Your task to perform on an android device: set the timer Image 0: 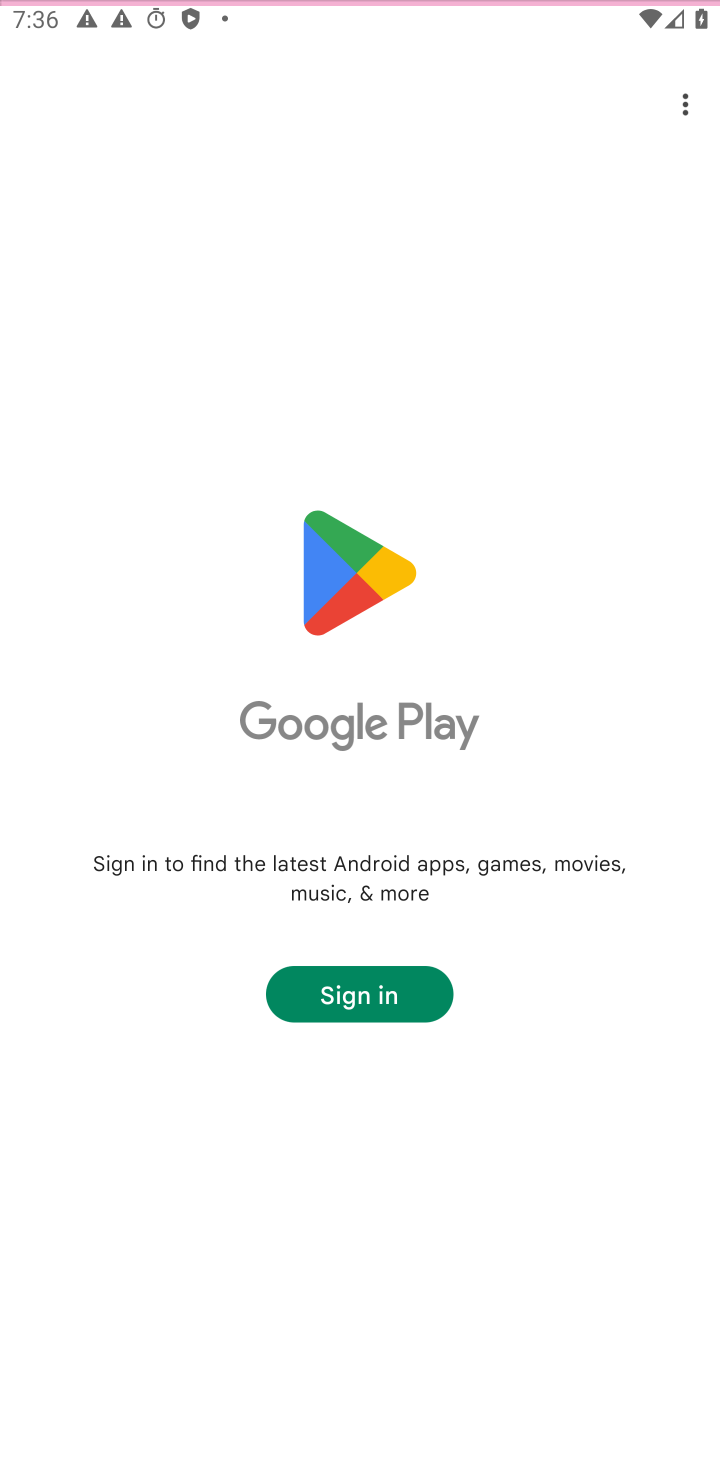
Step 0: press home button
Your task to perform on an android device: set the timer Image 1: 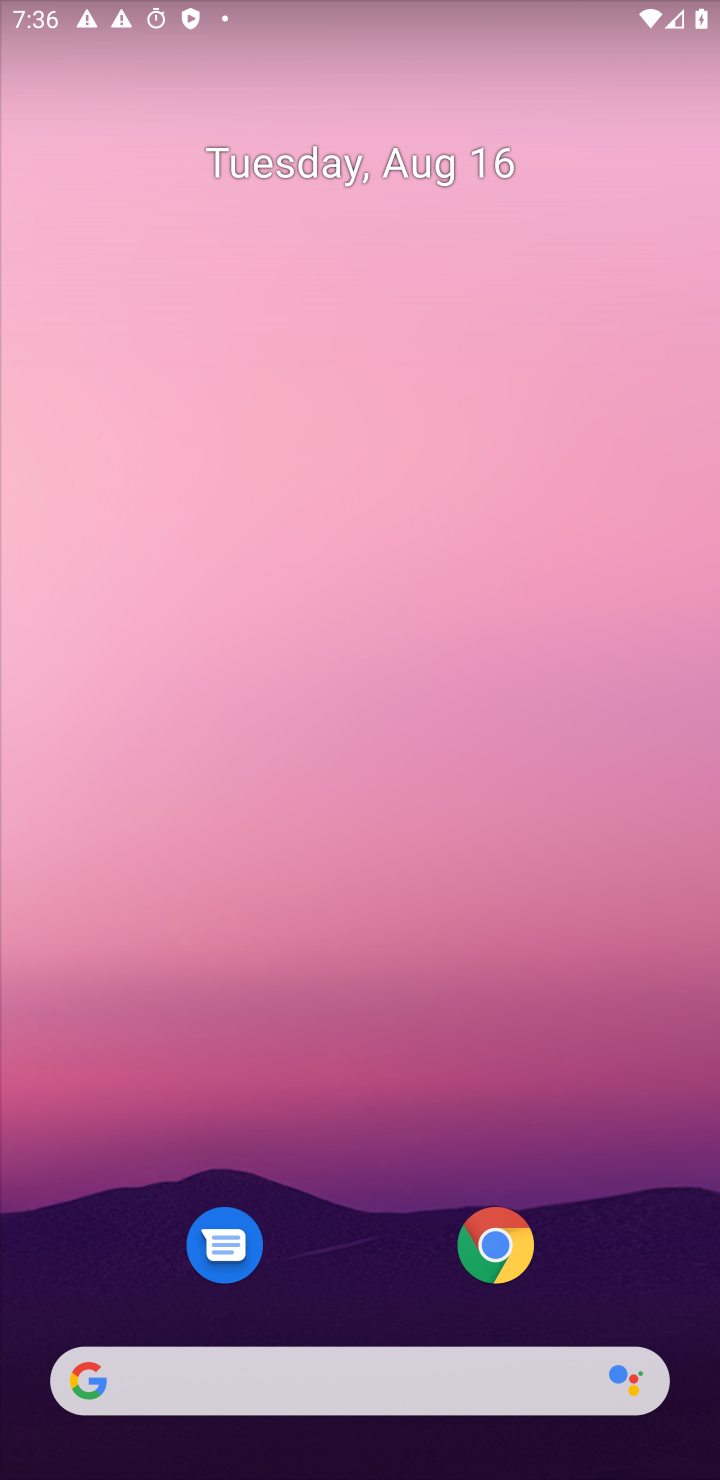
Step 1: drag from (296, 562) to (323, 189)
Your task to perform on an android device: set the timer Image 2: 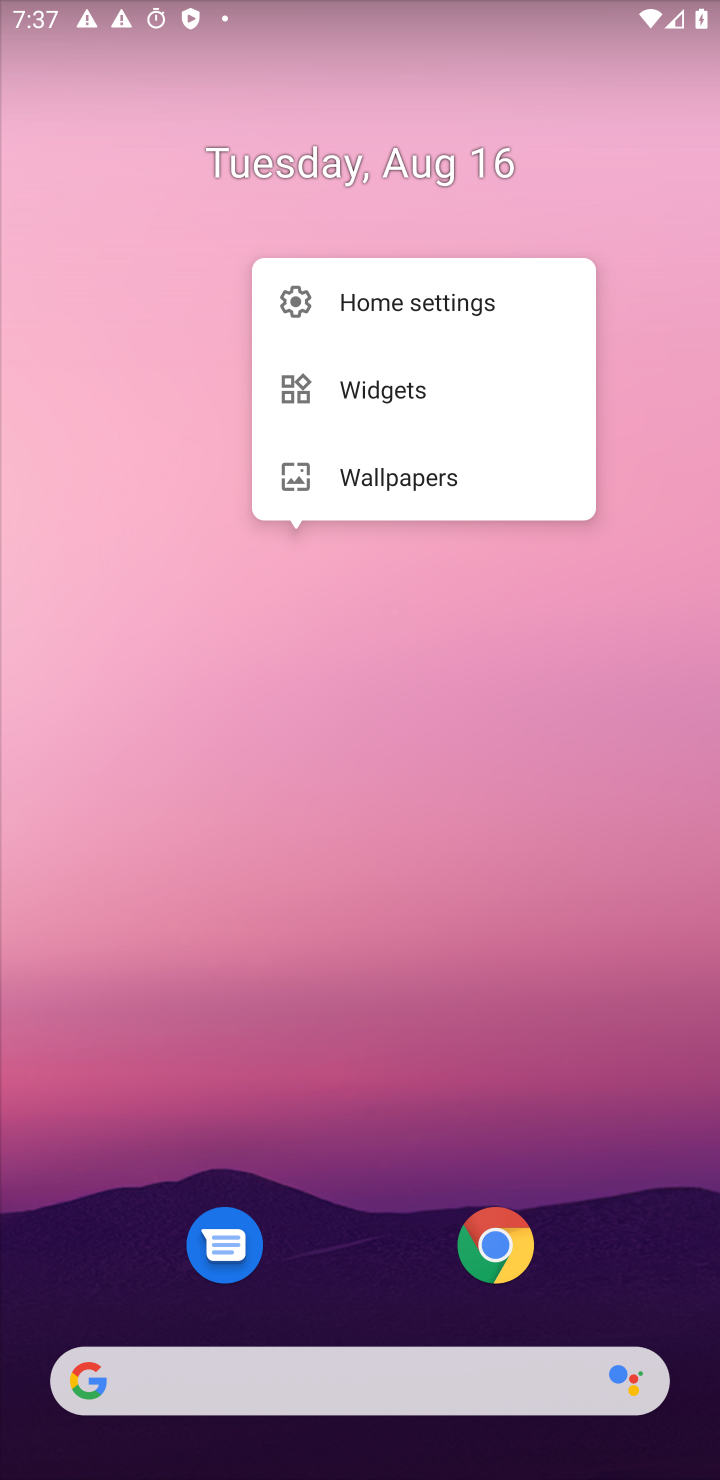
Step 2: click (417, 947)
Your task to perform on an android device: set the timer Image 3: 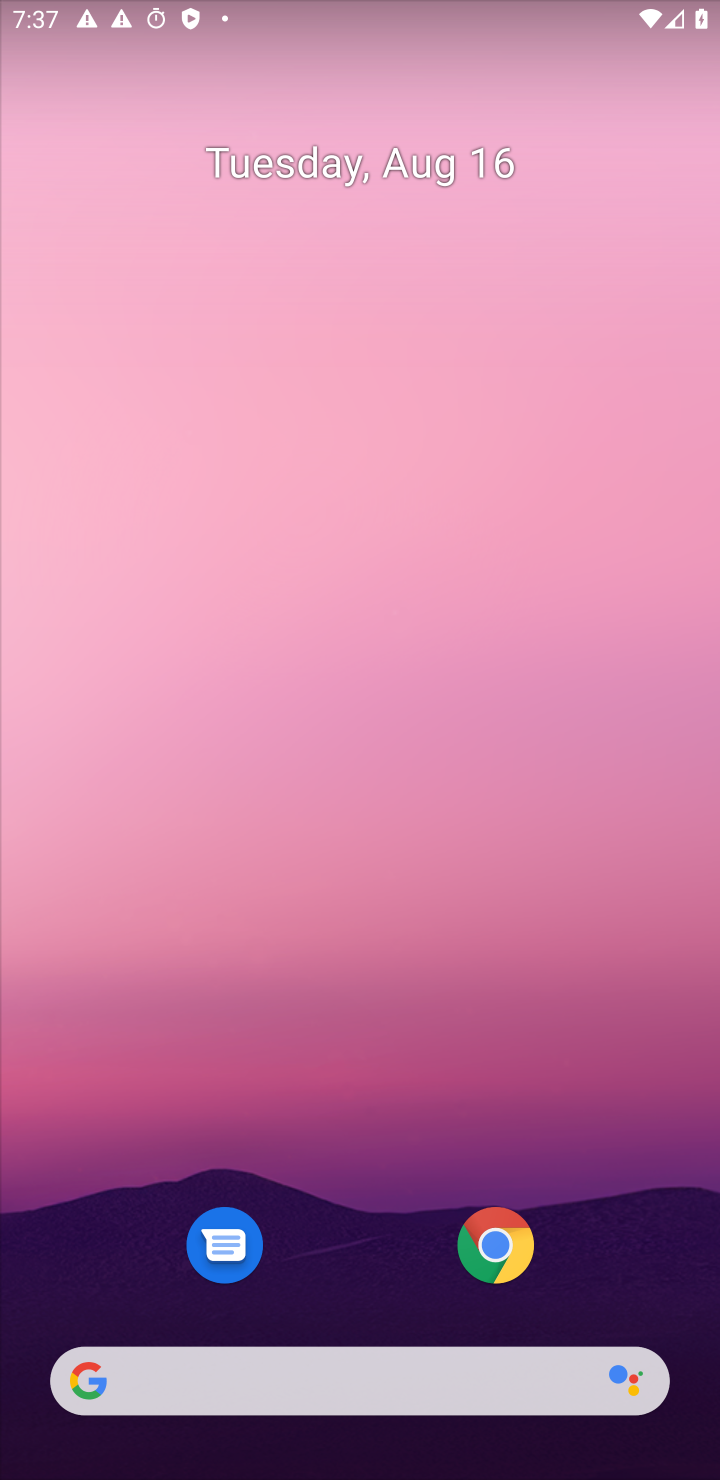
Step 3: drag from (334, 1032) to (296, 202)
Your task to perform on an android device: set the timer Image 4: 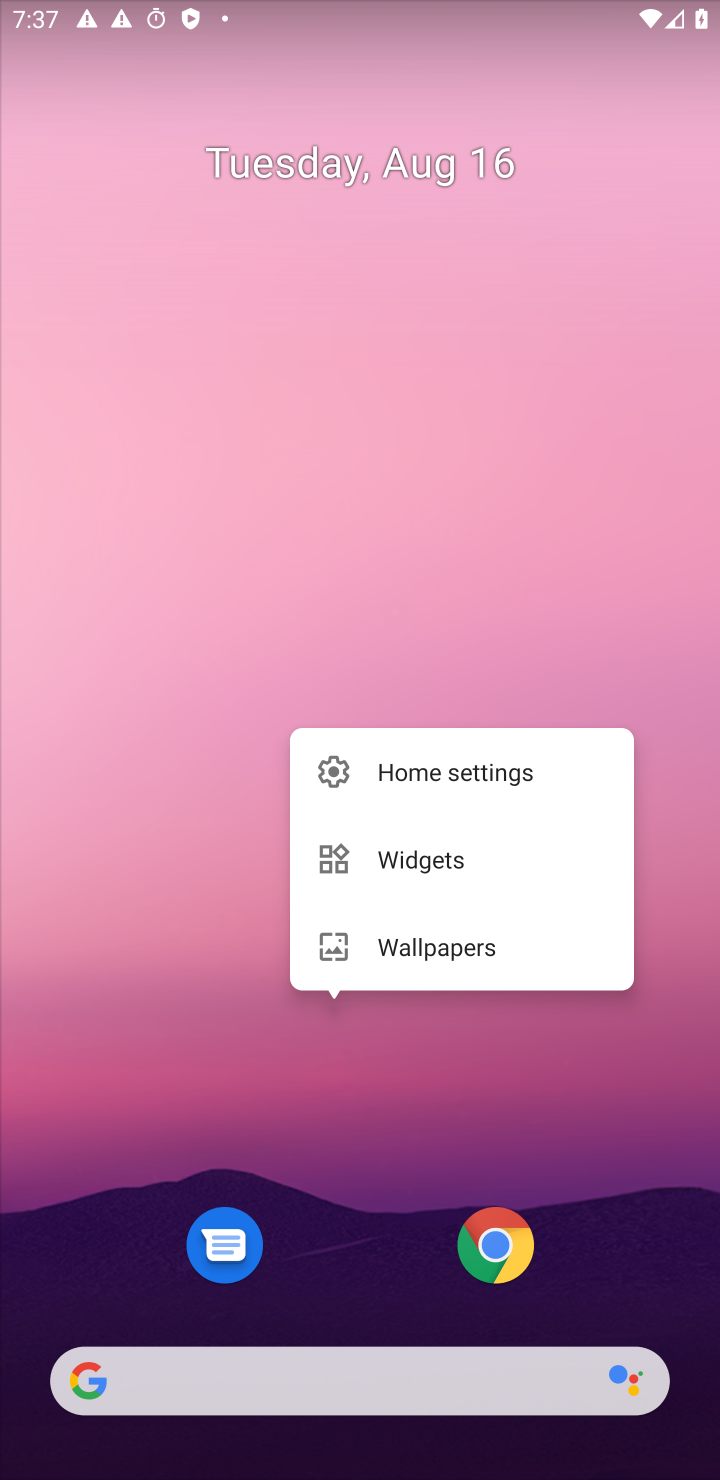
Step 4: click (454, 276)
Your task to perform on an android device: set the timer Image 5: 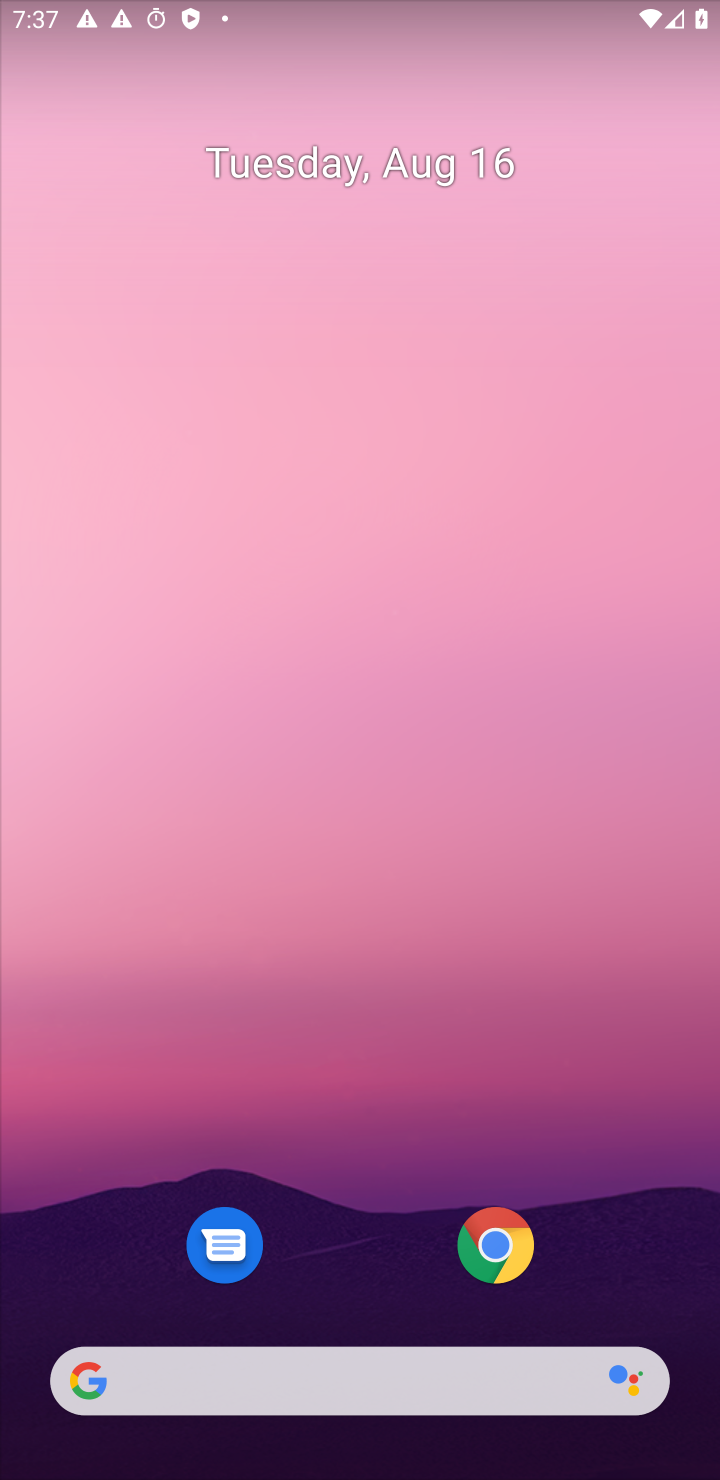
Step 5: drag from (384, 1223) to (286, 114)
Your task to perform on an android device: set the timer Image 6: 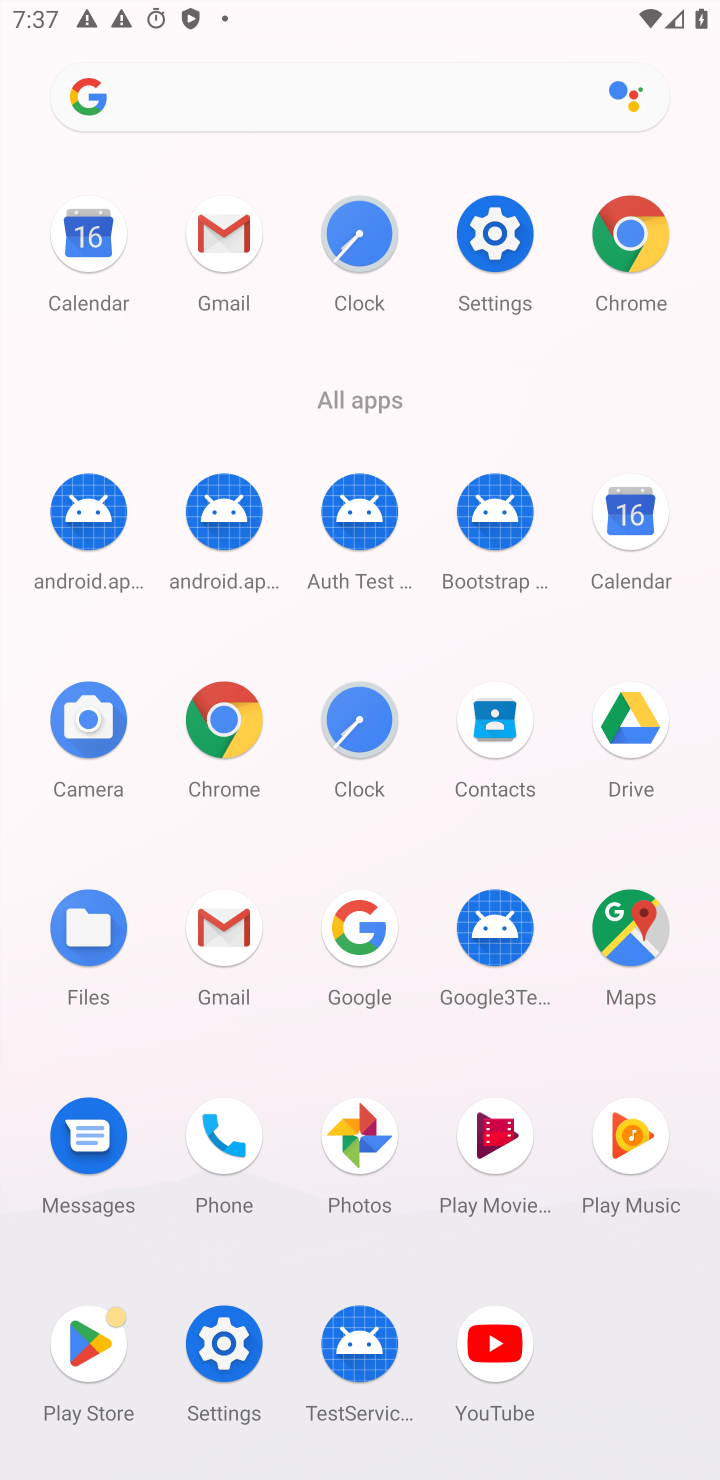
Step 6: click (355, 704)
Your task to perform on an android device: set the timer Image 7: 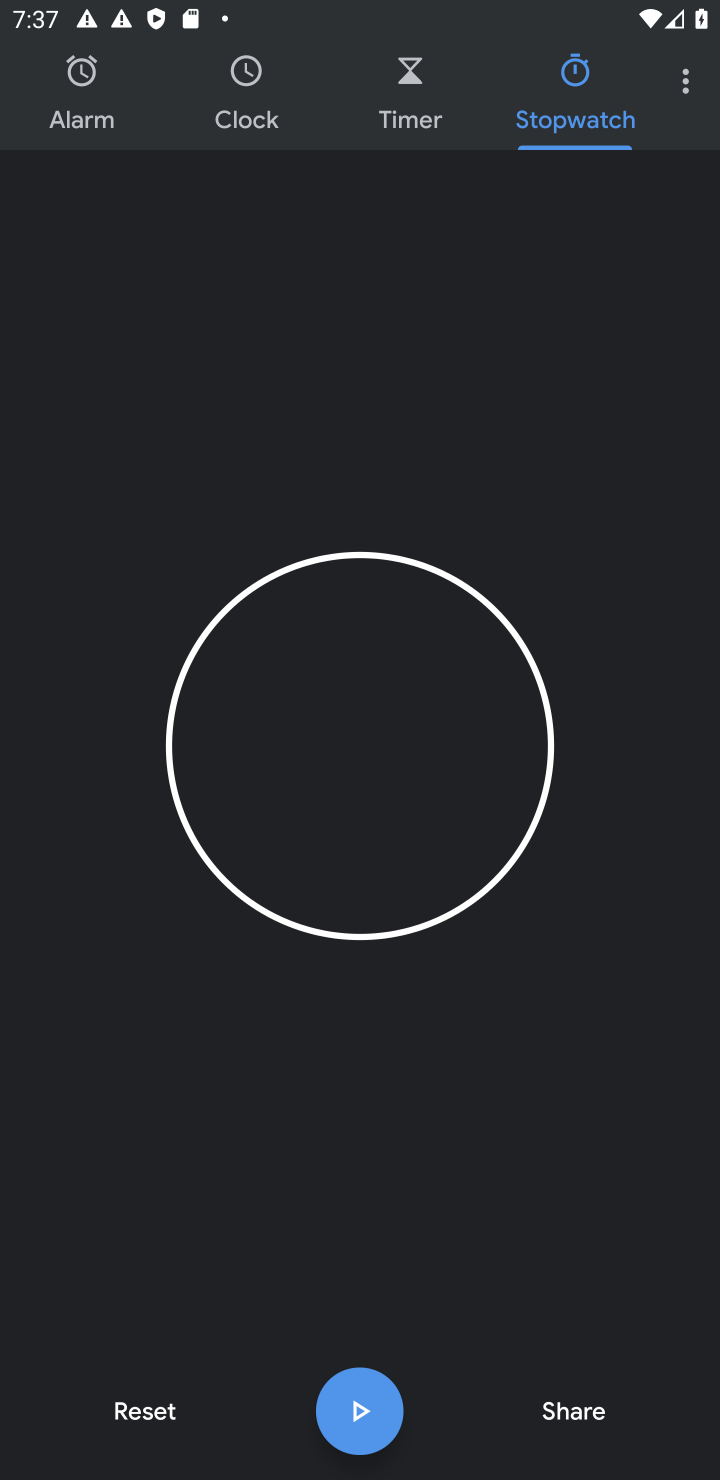
Step 7: click (405, 102)
Your task to perform on an android device: set the timer Image 8: 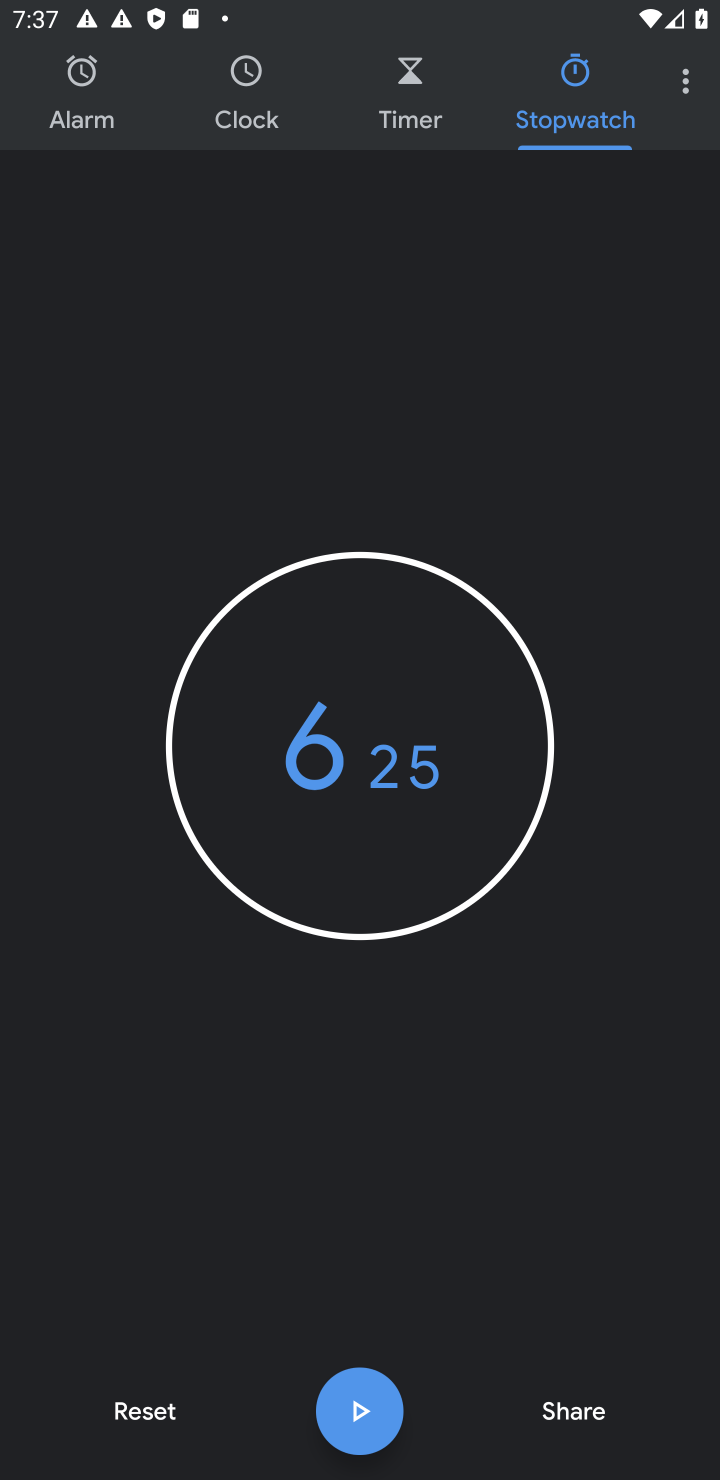
Step 8: click (419, 108)
Your task to perform on an android device: set the timer Image 9: 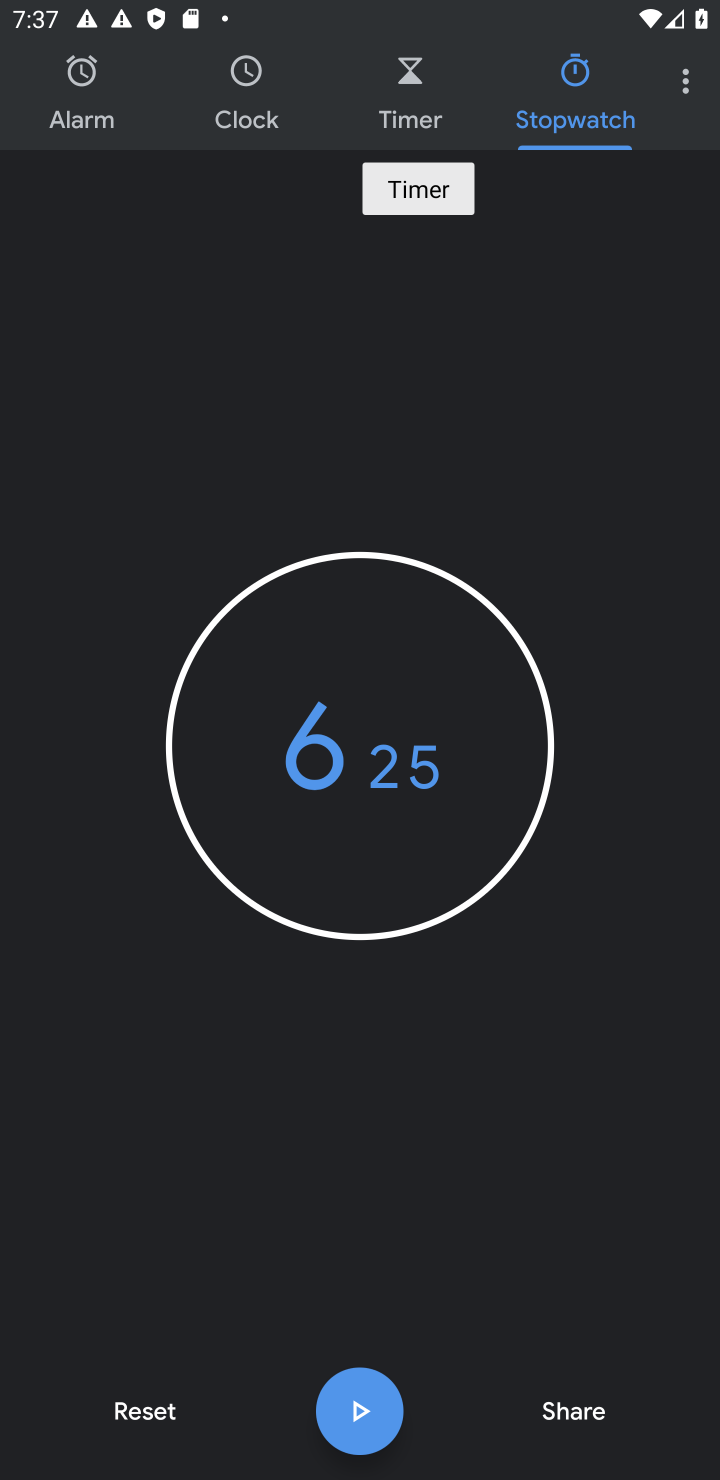
Step 9: click (406, 96)
Your task to perform on an android device: set the timer Image 10: 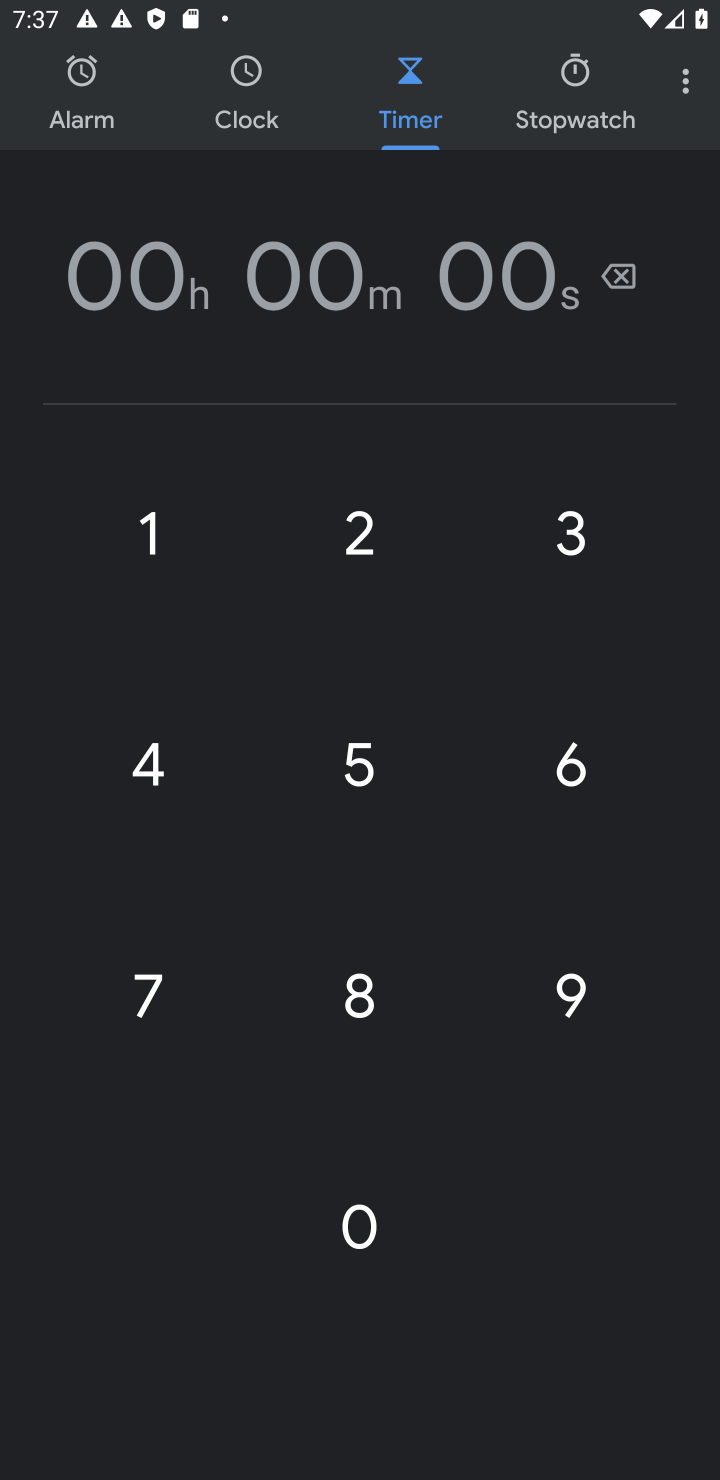
Step 10: click (572, 543)
Your task to perform on an android device: set the timer Image 11: 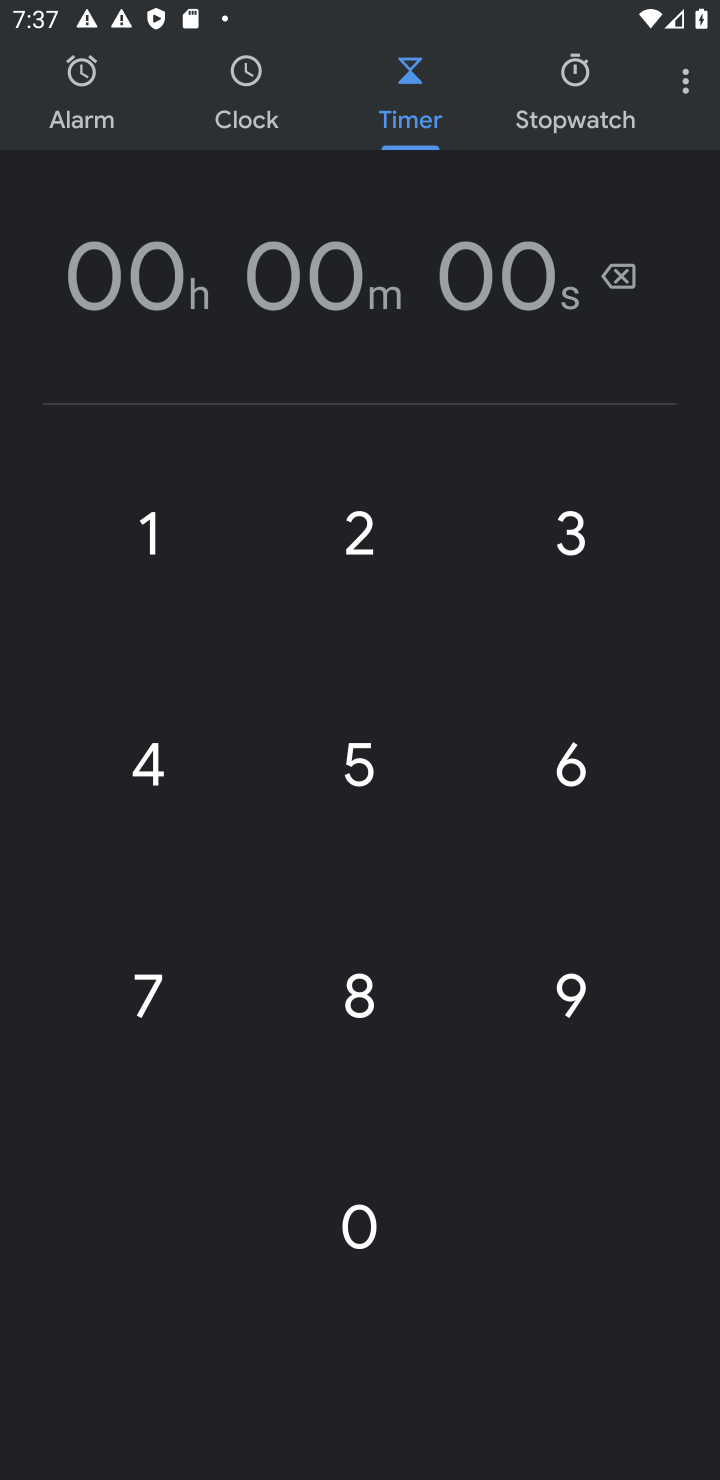
Step 11: click (367, 550)
Your task to perform on an android device: set the timer Image 12: 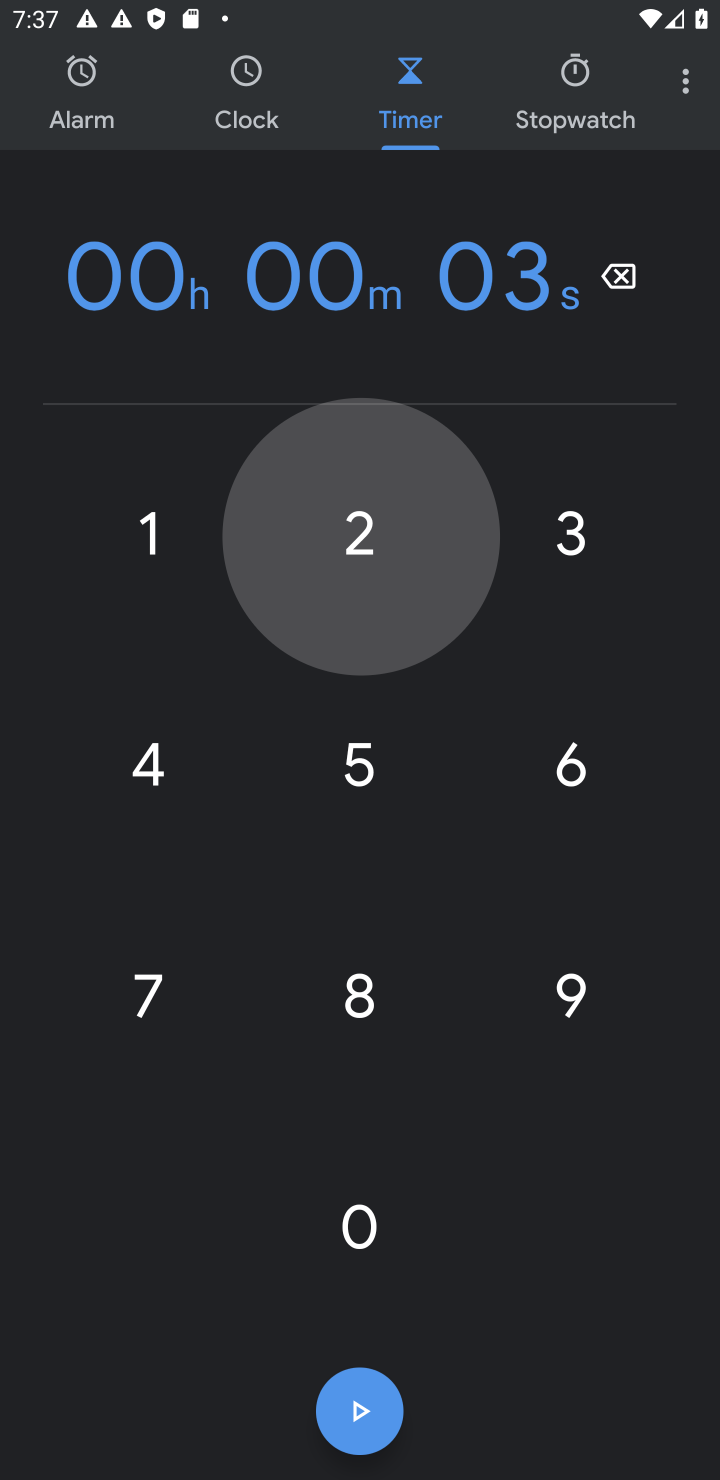
Step 12: click (146, 550)
Your task to perform on an android device: set the timer Image 13: 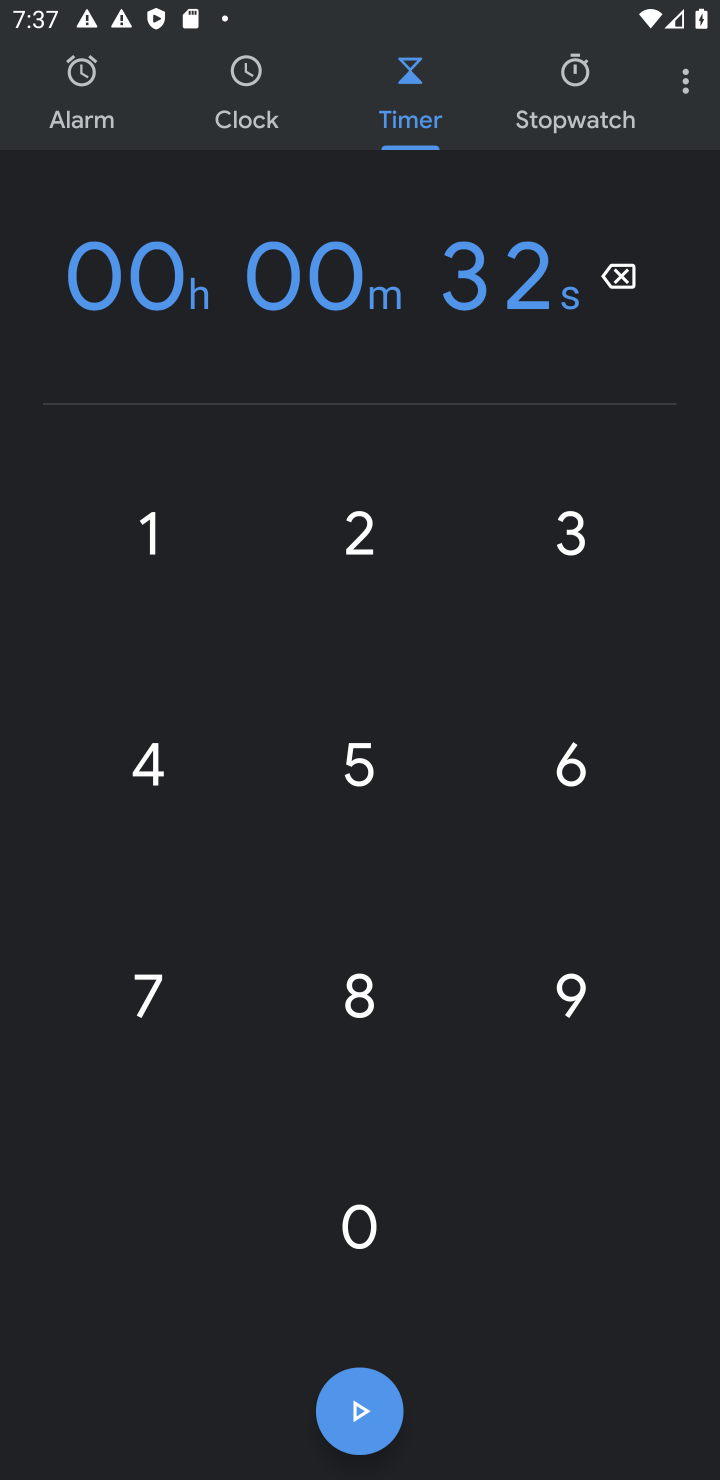
Step 13: click (582, 757)
Your task to perform on an android device: set the timer Image 14: 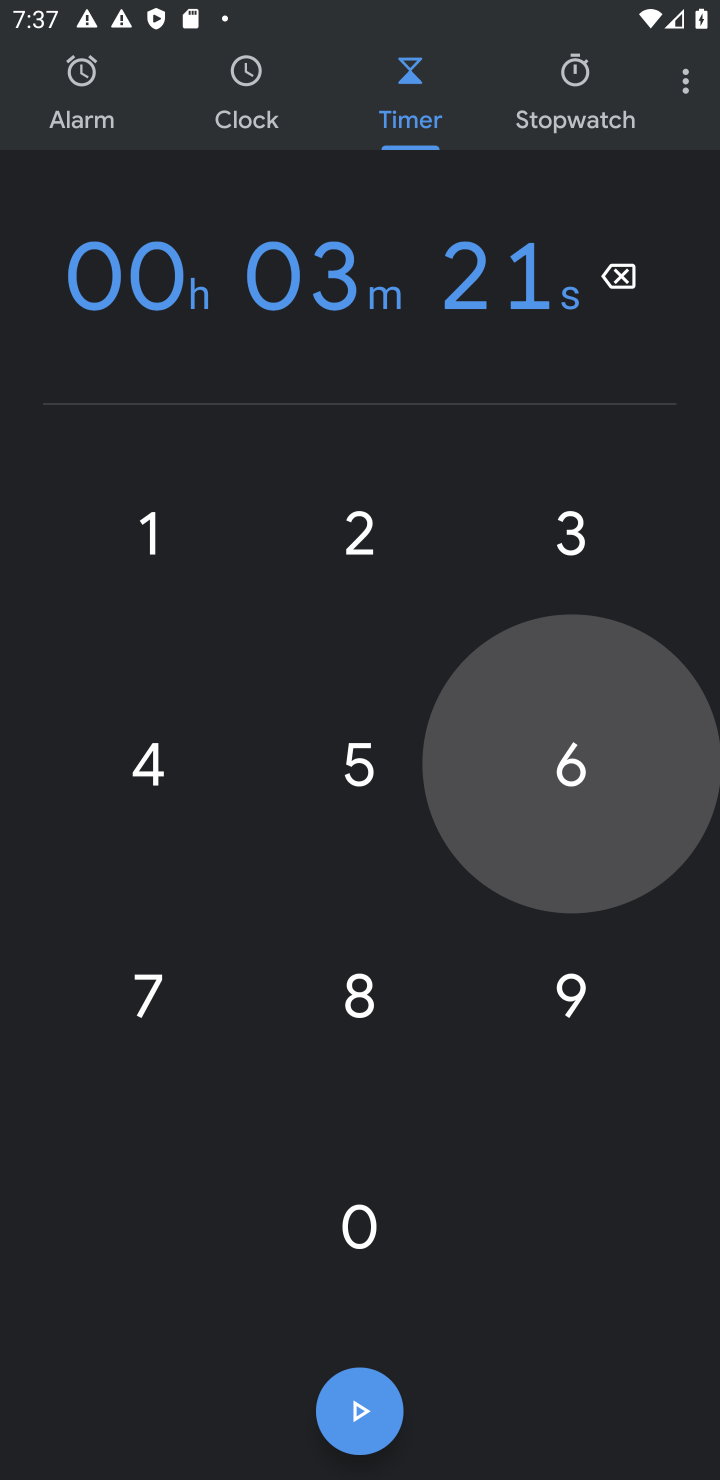
Step 14: click (341, 786)
Your task to perform on an android device: set the timer Image 15: 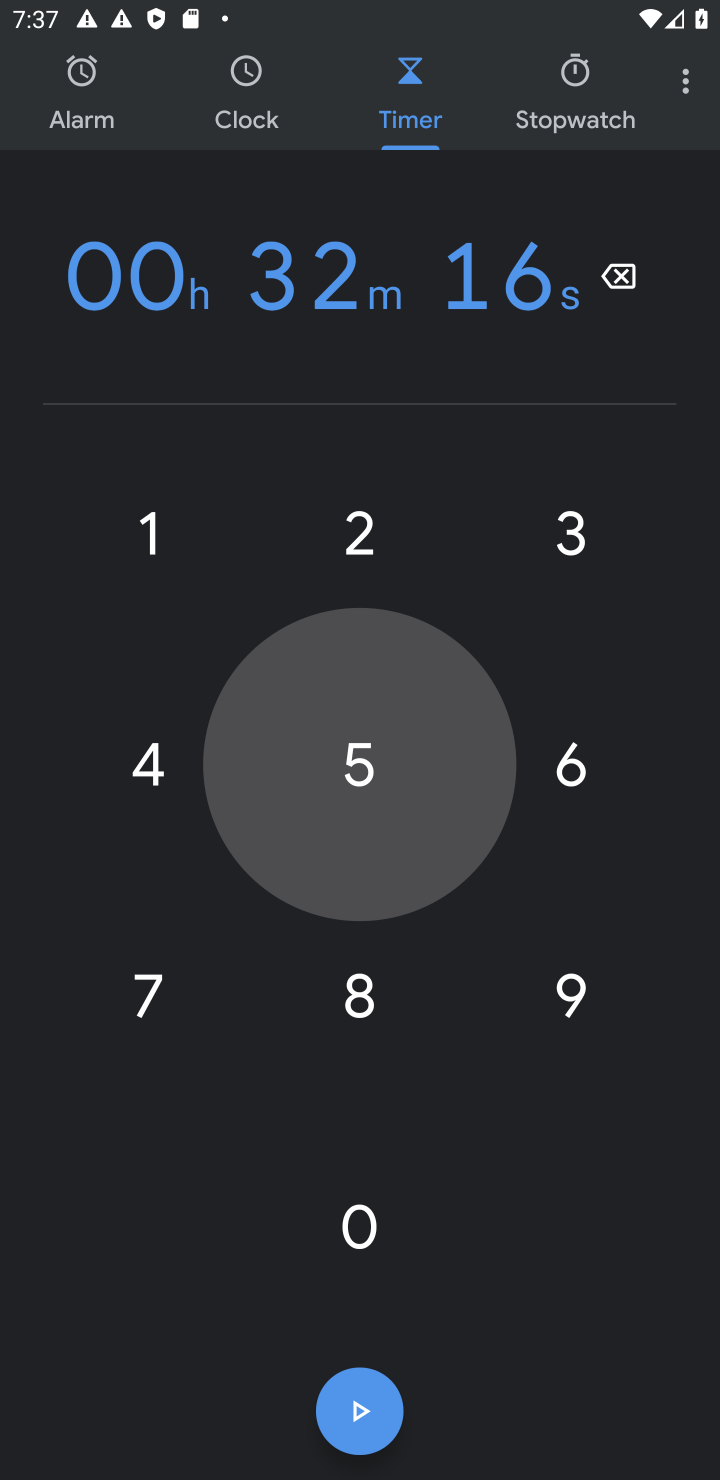
Step 15: click (171, 765)
Your task to perform on an android device: set the timer Image 16: 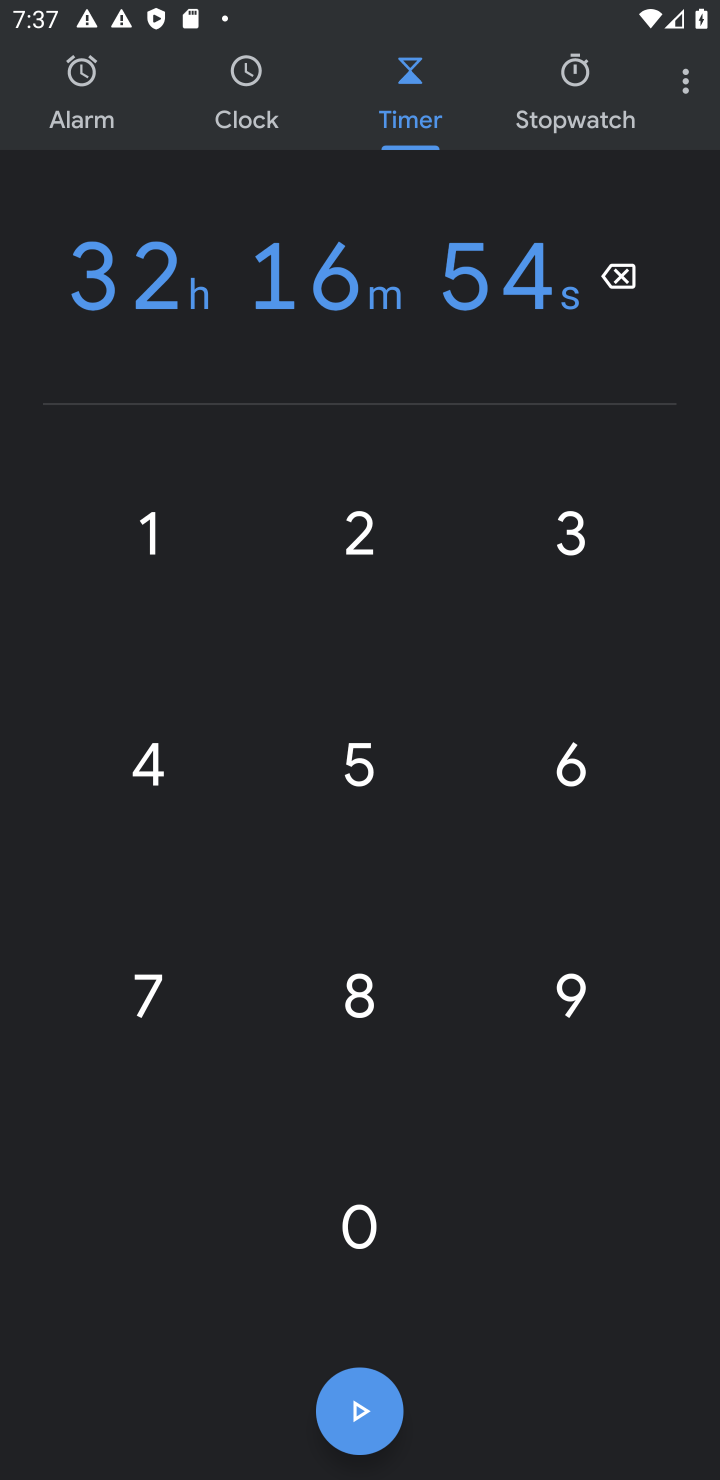
Step 16: click (363, 1407)
Your task to perform on an android device: set the timer Image 17: 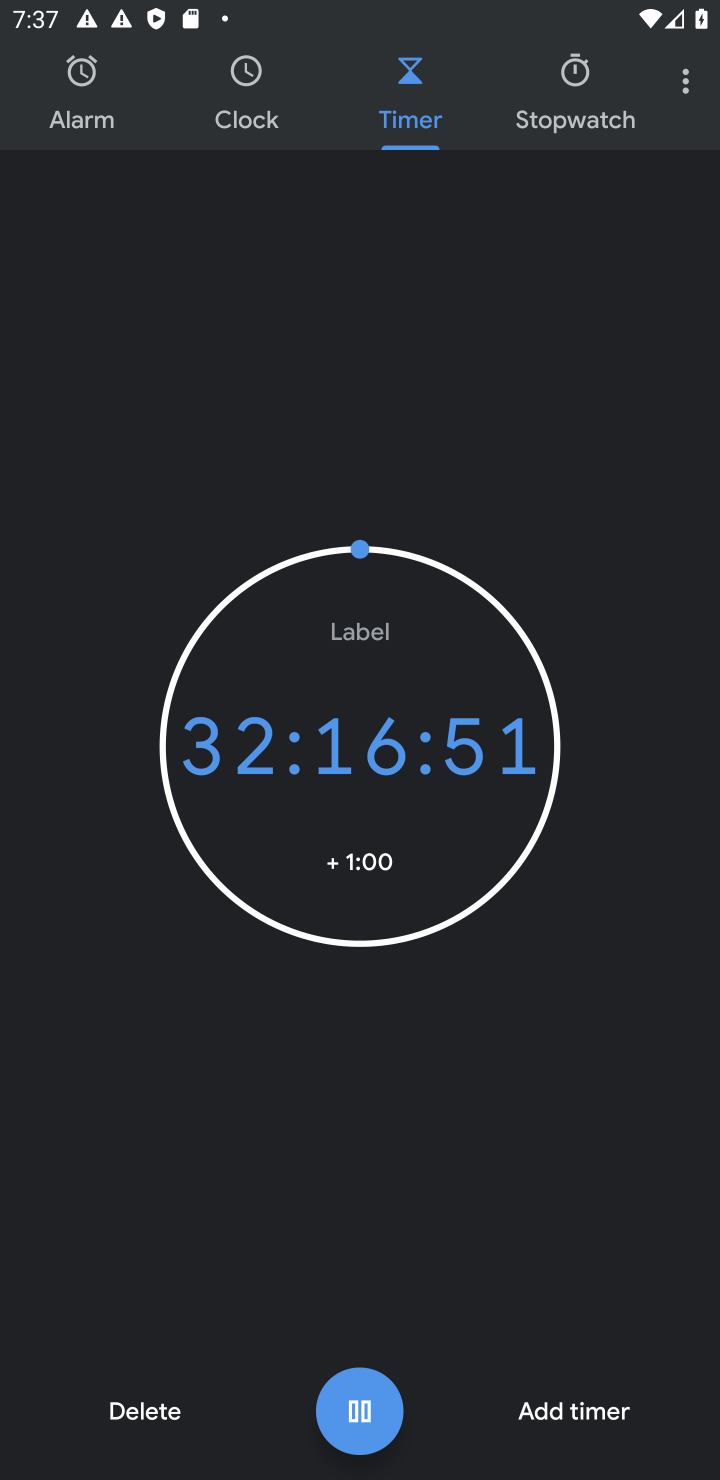
Step 17: task complete